Your task to perform on an android device: Do I have any events tomorrow? Image 0: 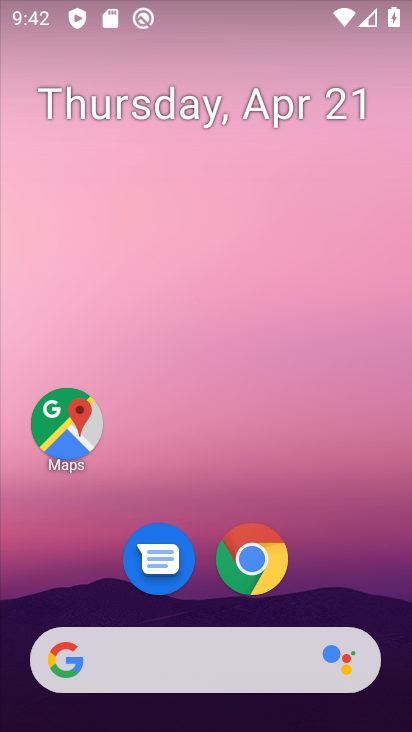
Step 0: drag from (313, 570) to (314, 155)
Your task to perform on an android device: Do I have any events tomorrow? Image 1: 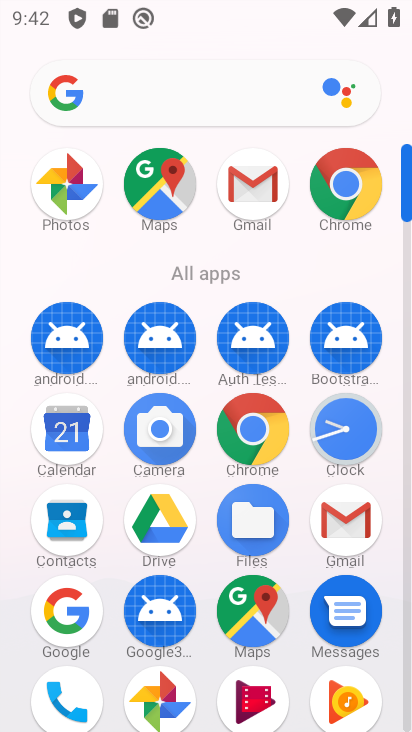
Step 1: drag from (298, 642) to (305, 309)
Your task to perform on an android device: Do I have any events tomorrow? Image 2: 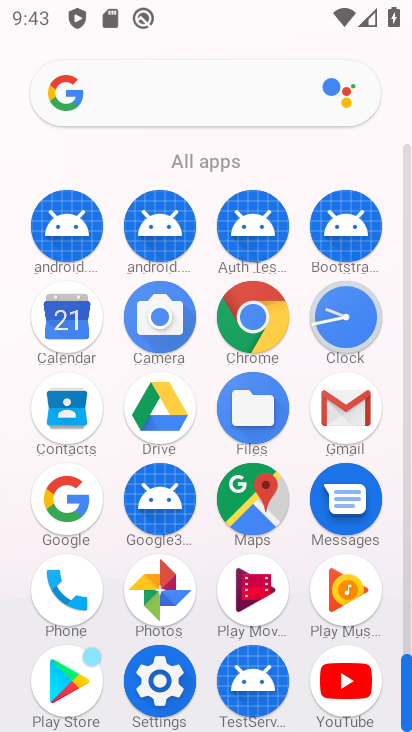
Step 2: drag from (314, 482) to (305, 394)
Your task to perform on an android device: Do I have any events tomorrow? Image 3: 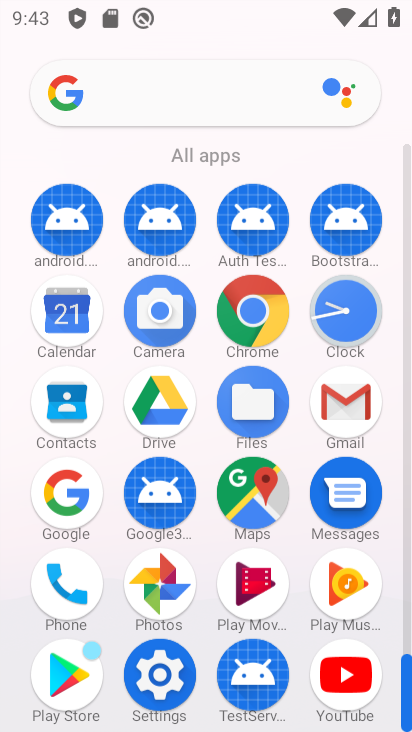
Step 3: click (307, 612)
Your task to perform on an android device: Do I have any events tomorrow? Image 4: 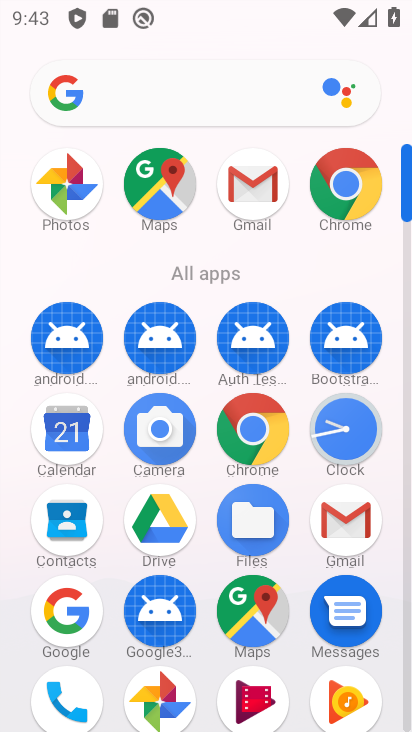
Step 4: click (254, 449)
Your task to perform on an android device: Do I have any events tomorrow? Image 5: 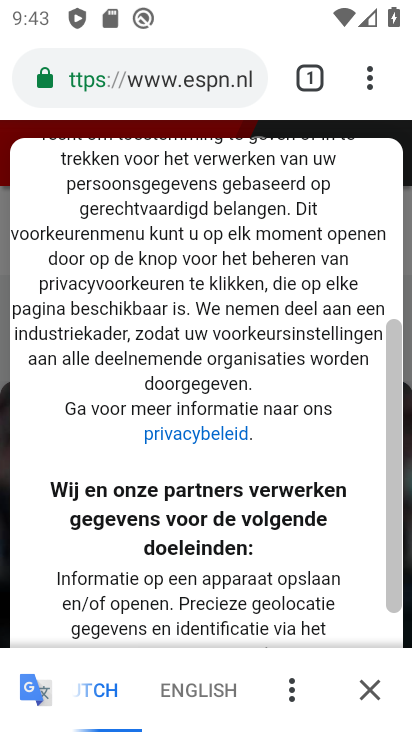
Step 5: click (168, 66)
Your task to perform on an android device: Do I have any events tomorrow? Image 6: 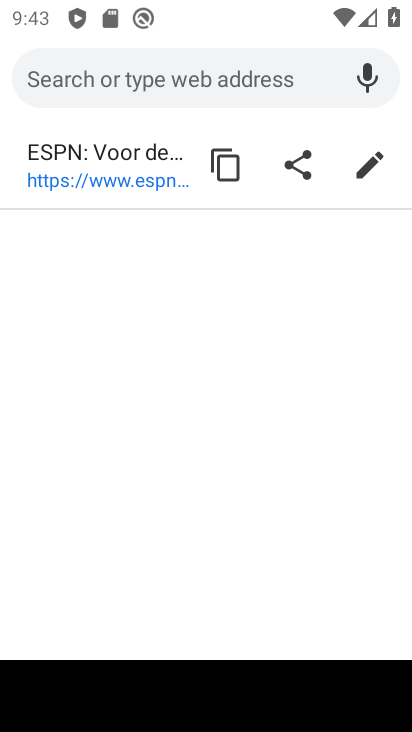
Step 6: type "Do i have any events tomorrow?"
Your task to perform on an android device: Do I have any events tomorrow? Image 7: 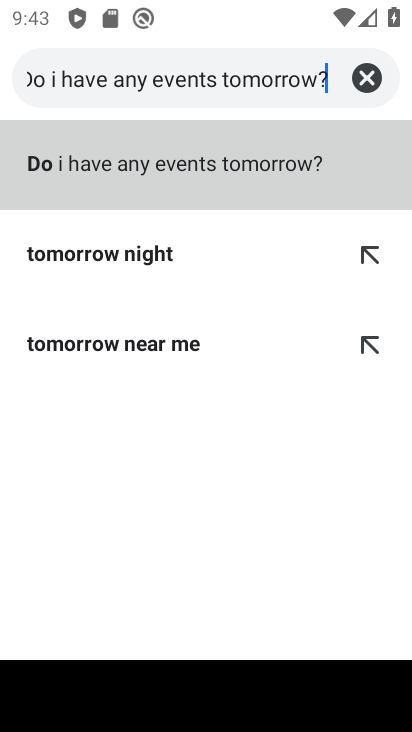
Step 7: click (124, 157)
Your task to perform on an android device: Do I have any events tomorrow? Image 8: 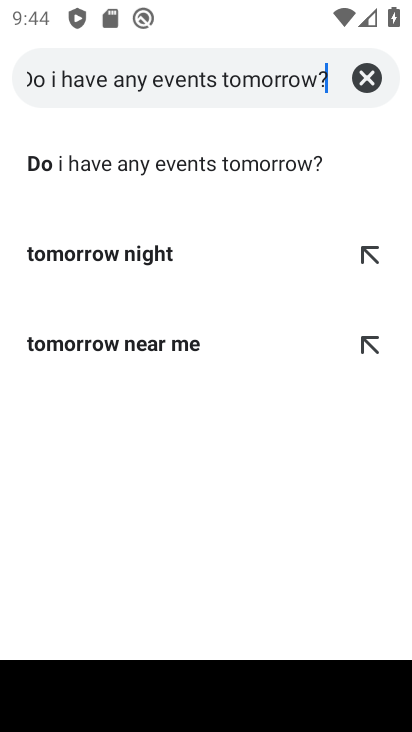
Step 8: click (120, 167)
Your task to perform on an android device: Do I have any events tomorrow? Image 9: 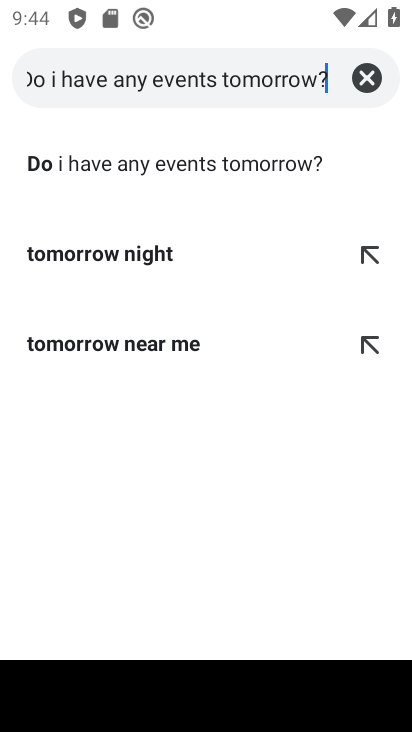
Step 9: click (107, 177)
Your task to perform on an android device: Do I have any events tomorrow? Image 10: 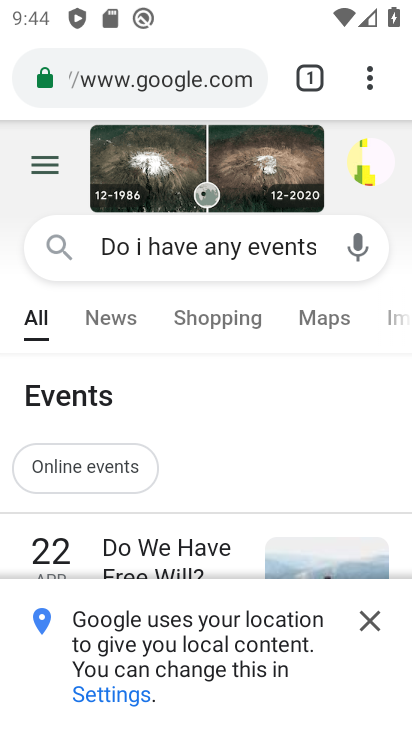
Step 10: task complete